Your task to perform on an android device: Play the last video I watched on Youtube Image 0: 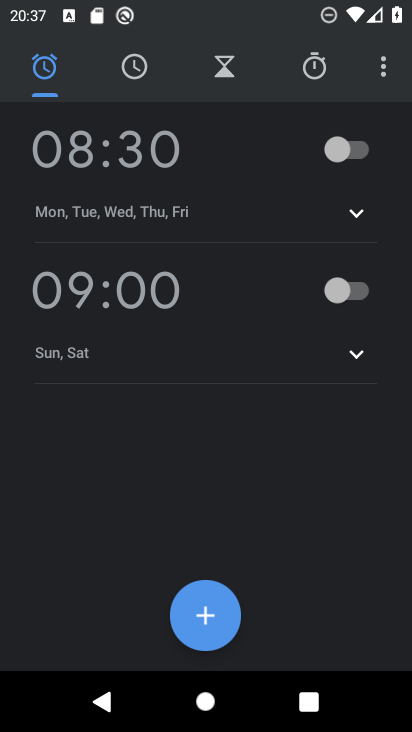
Step 0: press home button
Your task to perform on an android device: Play the last video I watched on Youtube Image 1: 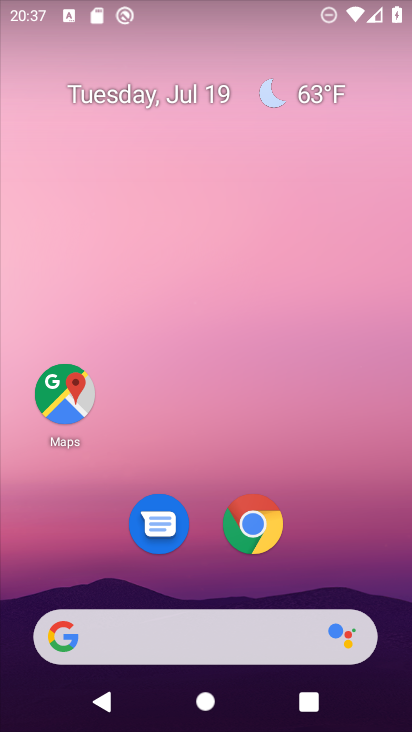
Step 1: drag from (319, 520) to (314, 116)
Your task to perform on an android device: Play the last video I watched on Youtube Image 2: 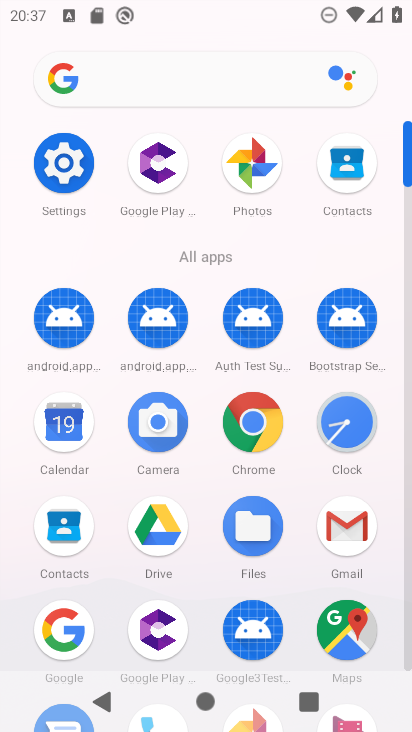
Step 2: drag from (295, 501) to (283, 102)
Your task to perform on an android device: Play the last video I watched on Youtube Image 3: 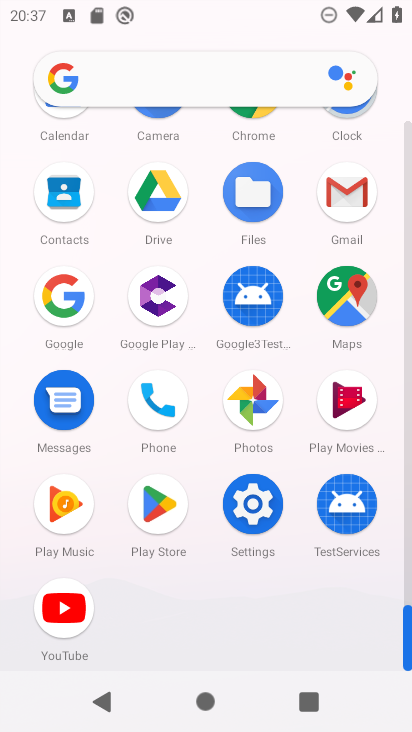
Step 3: click (67, 605)
Your task to perform on an android device: Play the last video I watched on Youtube Image 4: 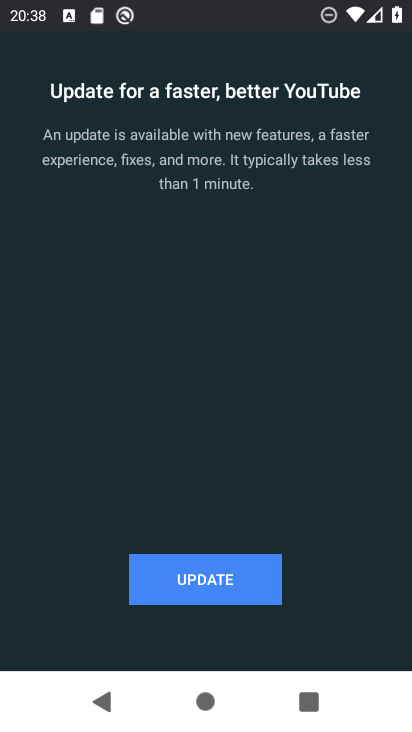
Step 4: click (266, 576)
Your task to perform on an android device: Play the last video I watched on Youtube Image 5: 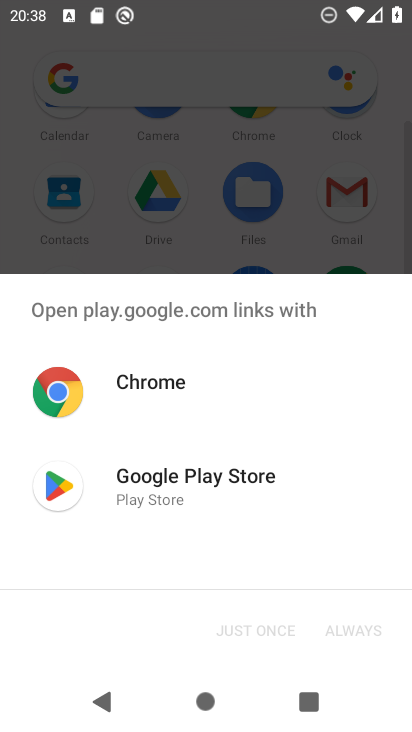
Step 5: click (173, 484)
Your task to perform on an android device: Play the last video I watched on Youtube Image 6: 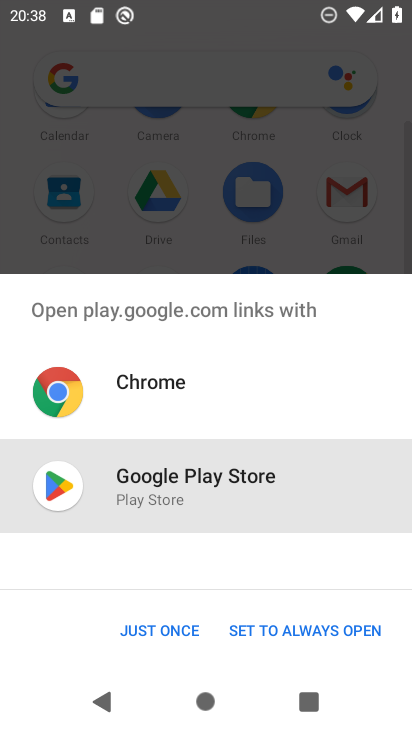
Step 6: click (182, 628)
Your task to perform on an android device: Play the last video I watched on Youtube Image 7: 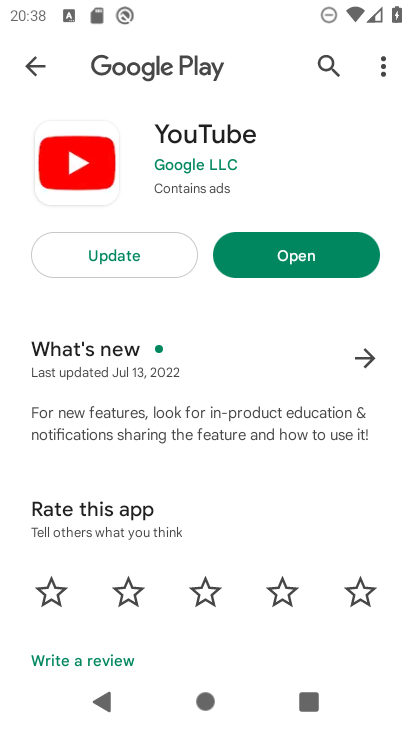
Step 7: click (171, 255)
Your task to perform on an android device: Play the last video I watched on Youtube Image 8: 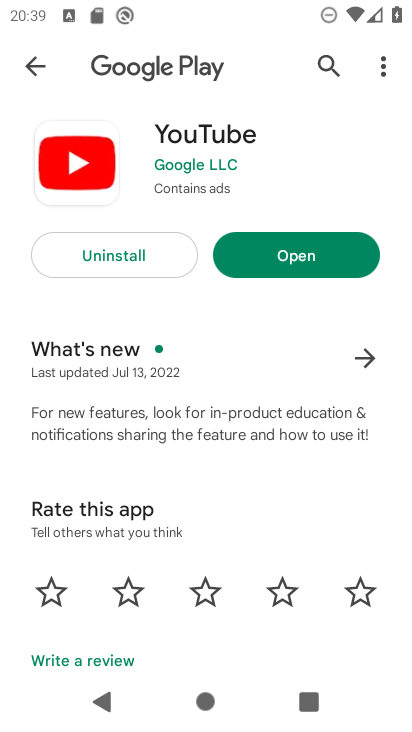
Step 8: click (291, 257)
Your task to perform on an android device: Play the last video I watched on Youtube Image 9: 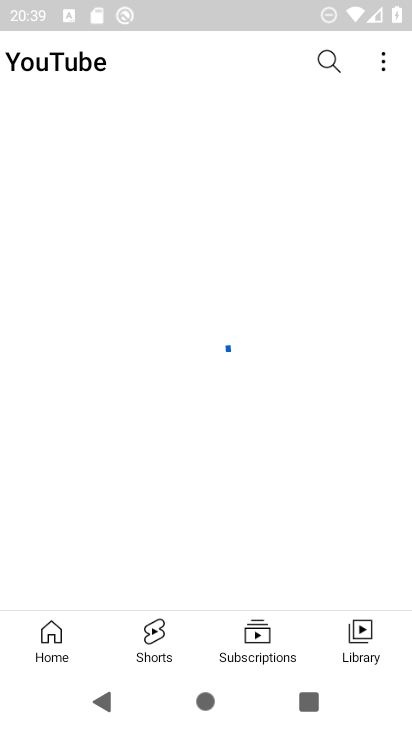
Step 9: click (353, 633)
Your task to perform on an android device: Play the last video I watched on Youtube Image 10: 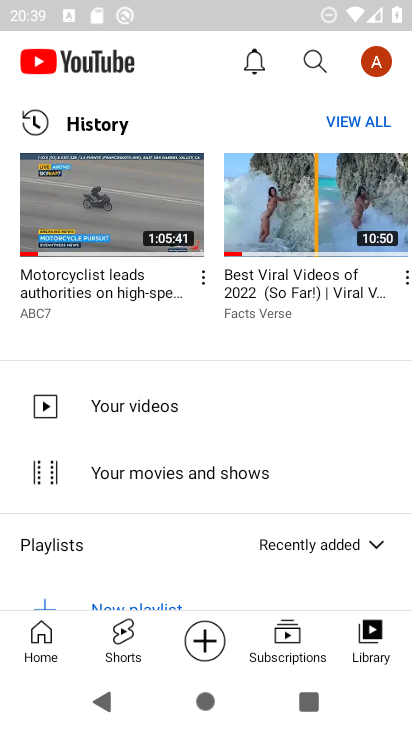
Step 10: click (104, 201)
Your task to perform on an android device: Play the last video I watched on Youtube Image 11: 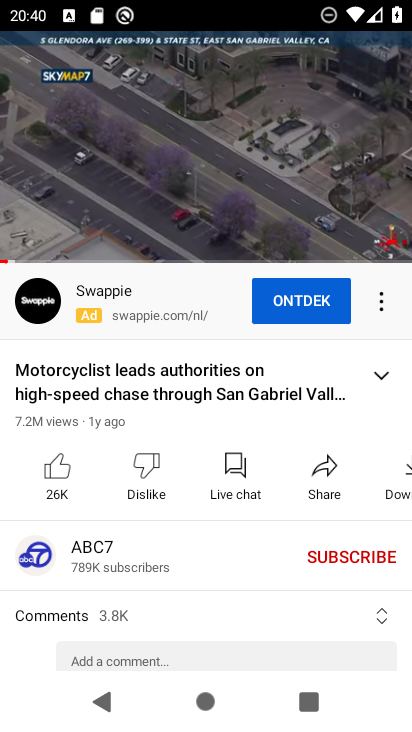
Step 11: task complete